Your task to perform on an android device: Open the map Image 0: 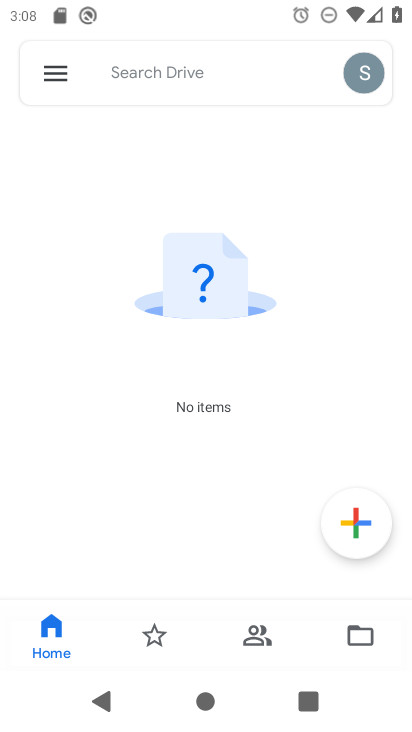
Step 0: press home button
Your task to perform on an android device: Open the map Image 1: 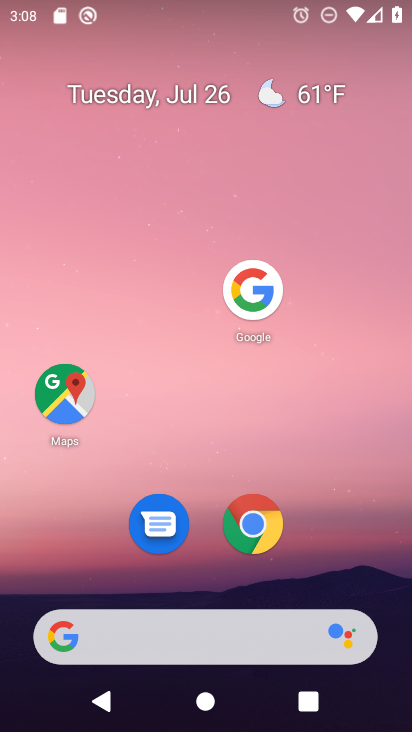
Step 1: click (67, 394)
Your task to perform on an android device: Open the map Image 2: 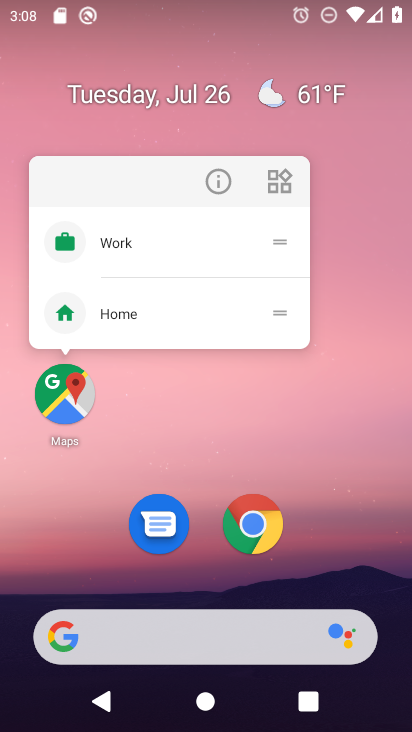
Step 2: click (67, 394)
Your task to perform on an android device: Open the map Image 3: 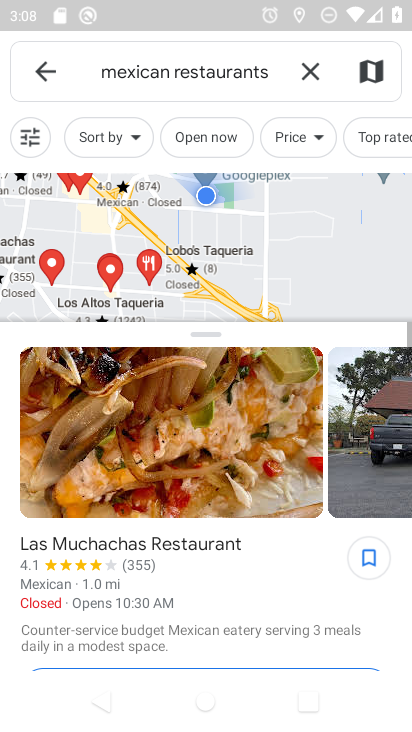
Step 3: click (34, 71)
Your task to perform on an android device: Open the map Image 4: 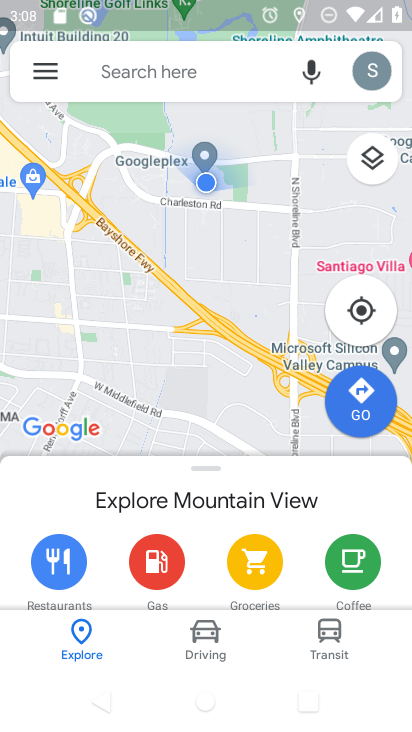
Step 4: task complete